Your task to perform on an android device: Go to Google maps Image 0: 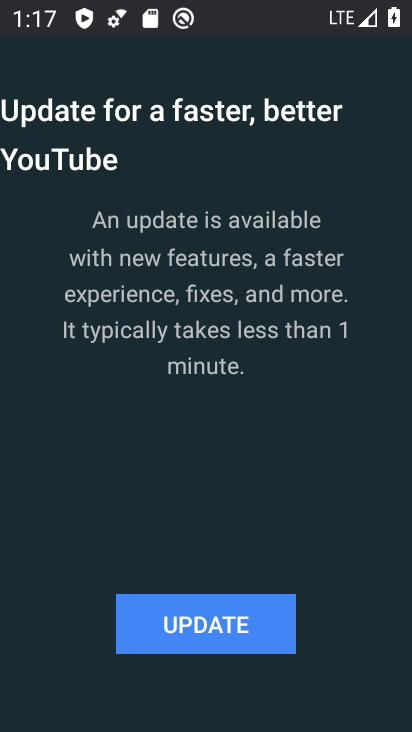
Step 0: click (169, 626)
Your task to perform on an android device: Go to Google maps Image 1: 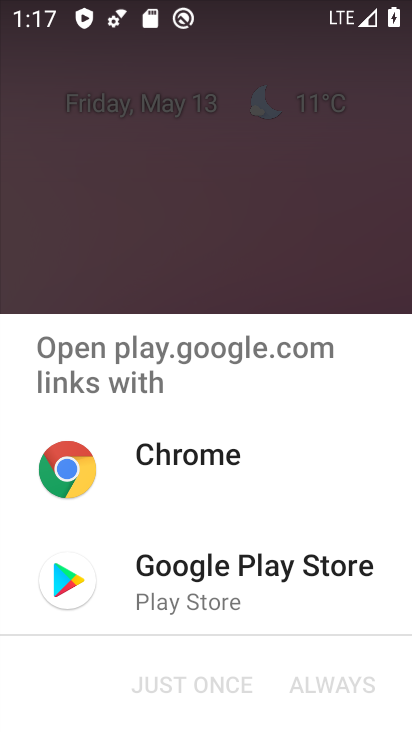
Step 1: click (168, 571)
Your task to perform on an android device: Go to Google maps Image 2: 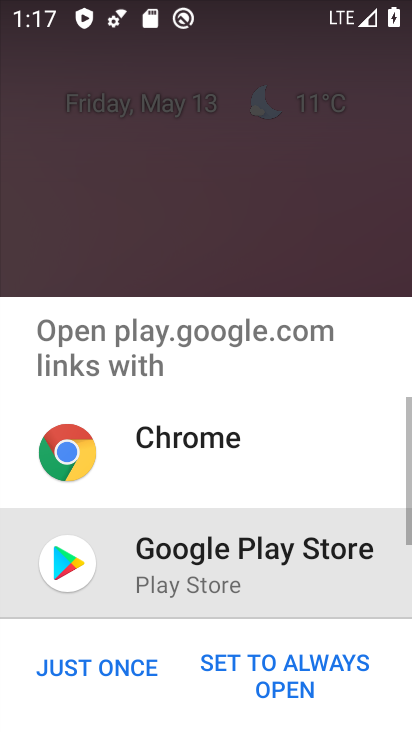
Step 2: click (116, 675)
Your task to perform on an android device: Go to Google maps Image 3: 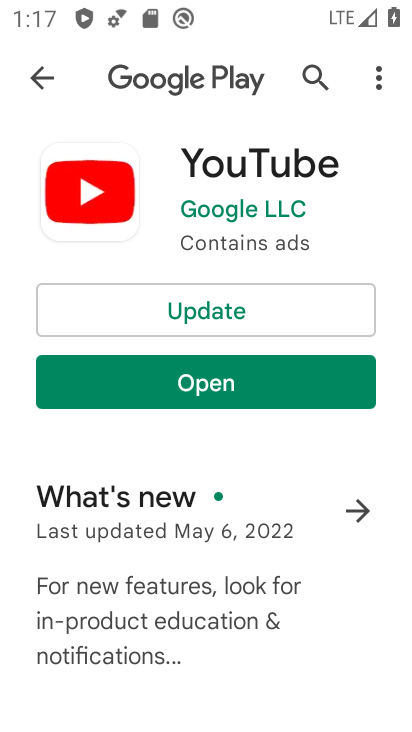
Step 3: press home button
Your task to perform on an android device: Go to Google maps Image 4: 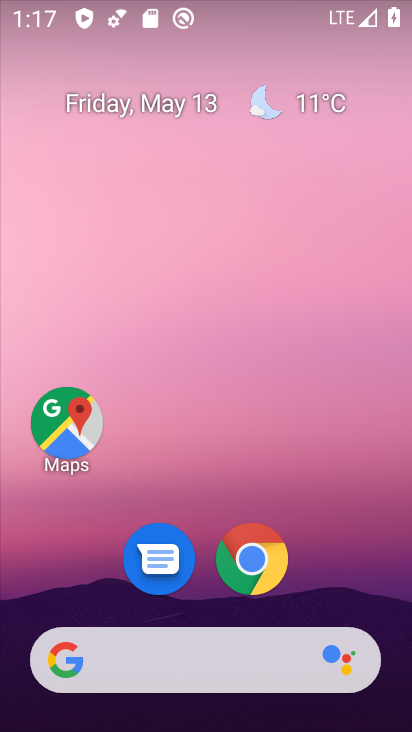
Step 4: click (50, 402)
Your task to perform on an android device: Go to Google maps Image 5: 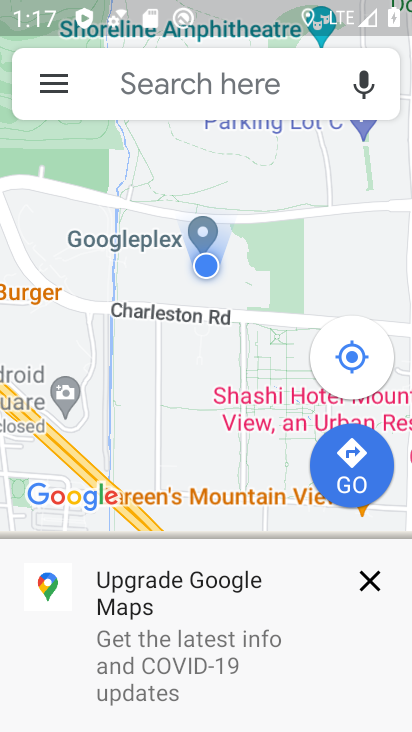
Step 5: task complete